Your task to perform on an android device: set default search engine in the chrome app Image 0: 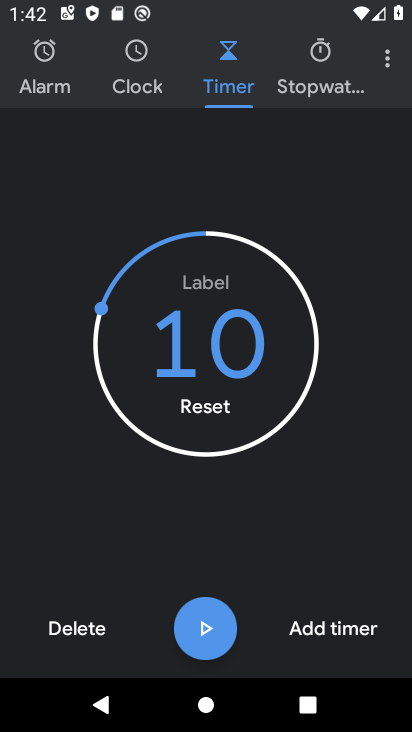
Step 0: press home button
Your task to perform on an android device: set default search engine in the chrome app Image 1: 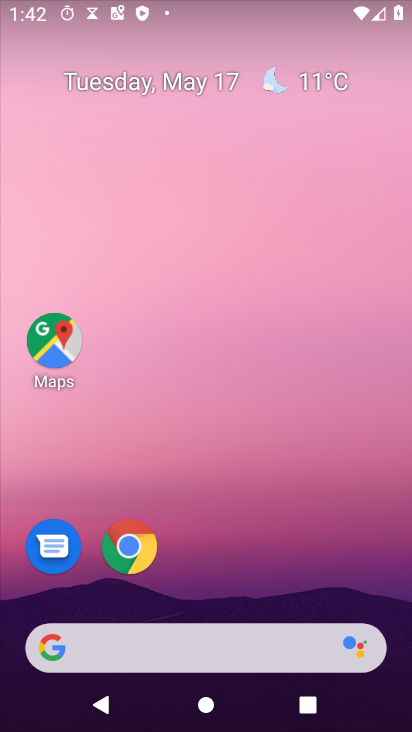
Step 1: click (135, 559)
Your task to perform on an android device: set default search engine in the chrome app Image 2: 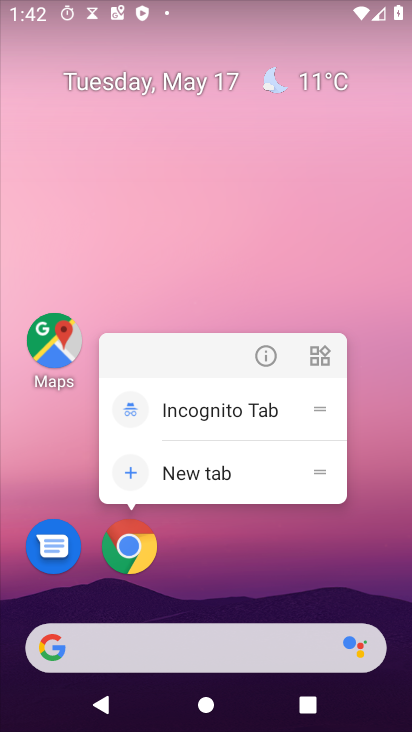
Step 2: click (143, 555)
Your task to perform on an android device: set default search engine in the chrome app Image 3: 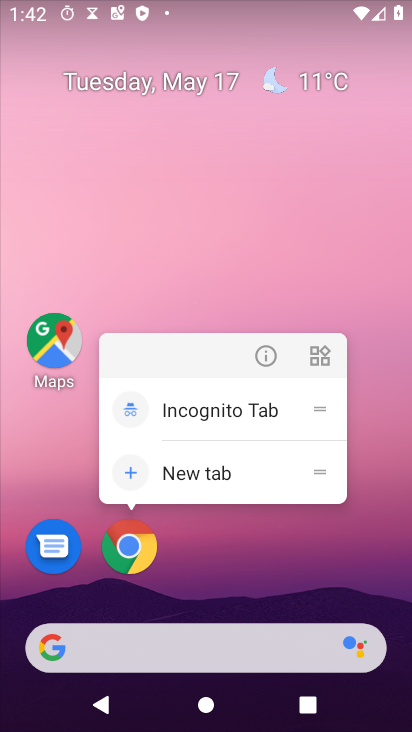
Step 3: click (138, 552)
Your task to perform on an android device: set default search engine in the chrome app Image 4: 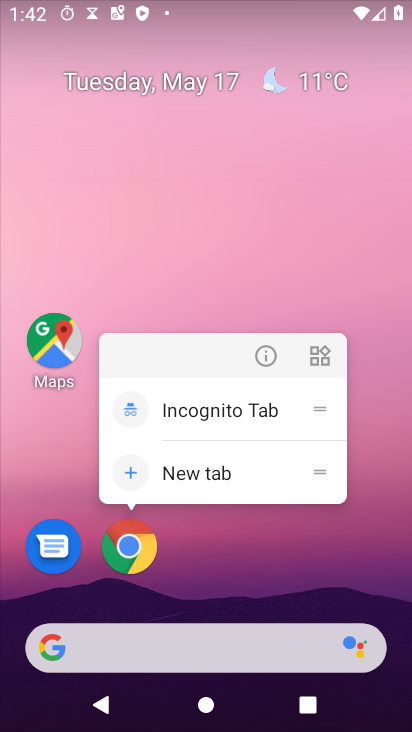
Step 4: click (134, 552)
Your task to perform on an android device: set default search engine in the chrome app Image 5: 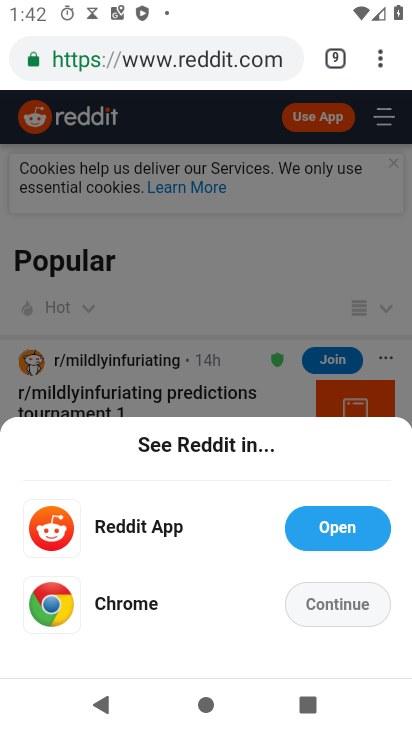
Step 5: drag from (379, 62) to (252, 572)
Your task to perform on an android device: set default search engine in the chrome app Image 6: 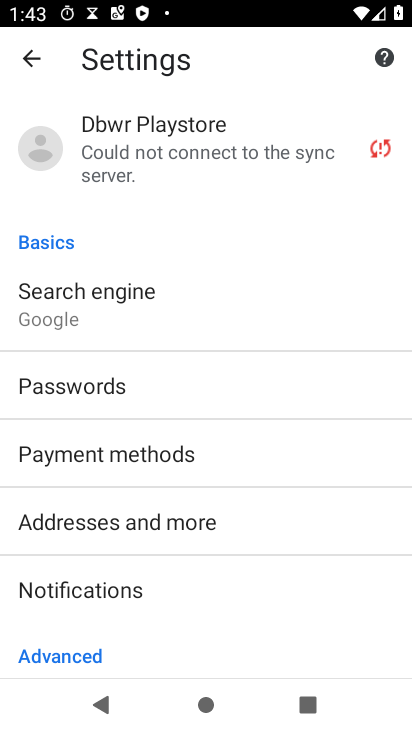
Step 6: click (92, 319)
Your task to perform on an android device: set default search engine in the chrome app Image 7: 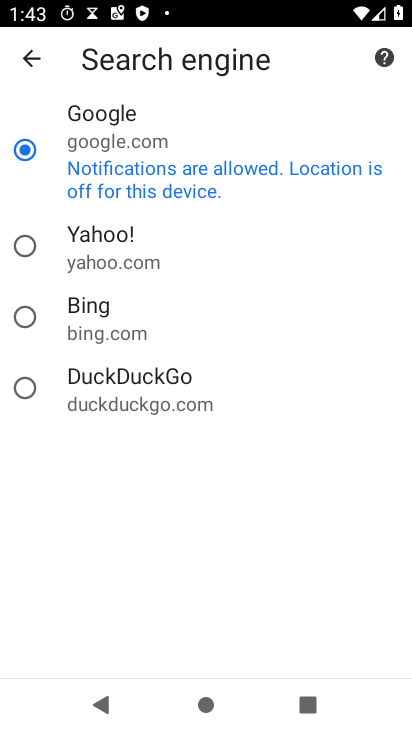
Step 7: click (23, 247)
Your task to perform on an android device: set default search engine in the chrome app Image 8: 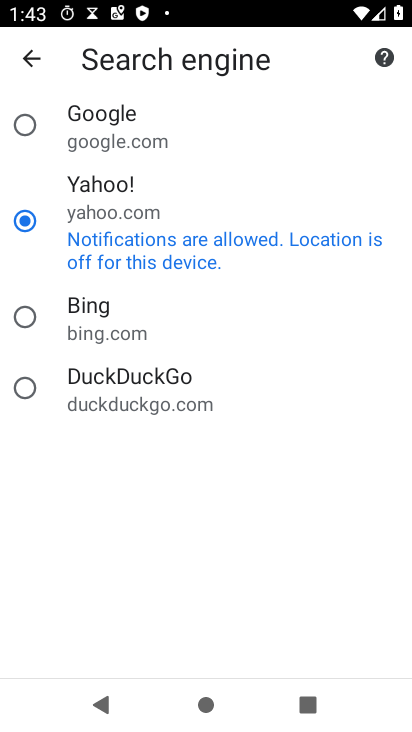
Step 8: task complete